Your task to perform on an android device: Open privacy settings Image 0: 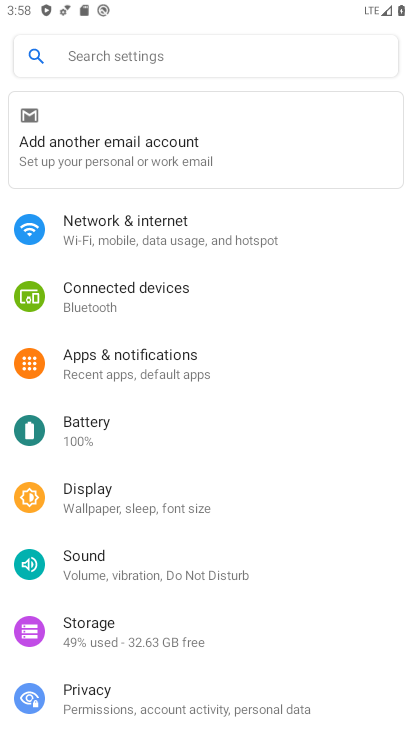
Step 0: press home button
Your task to perform on an android device: Open privacy settings Image 1: 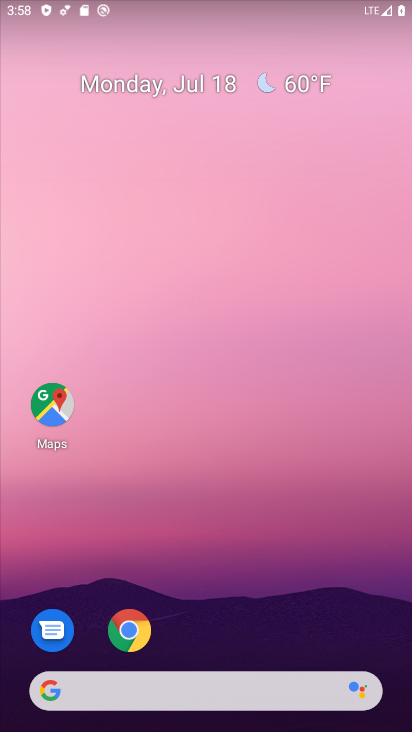
Step 1: drag from (331, 582) to (272, 68)
Your task to perform on an android device: Open privacy settings Image 2: 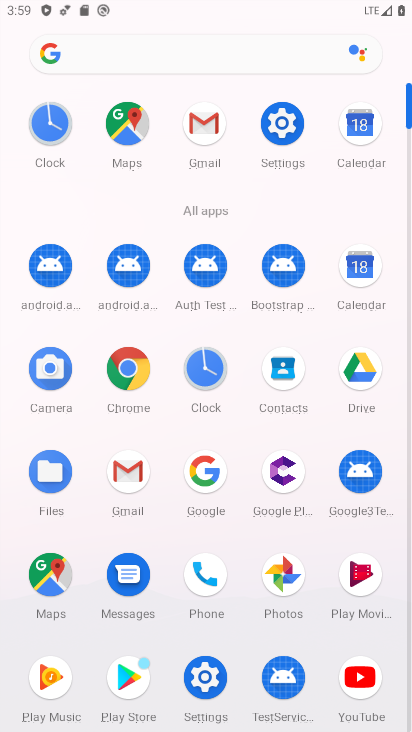
Step 2: click (210, 671)
Your task to perform on an android device: Open privacy settings Image 3: 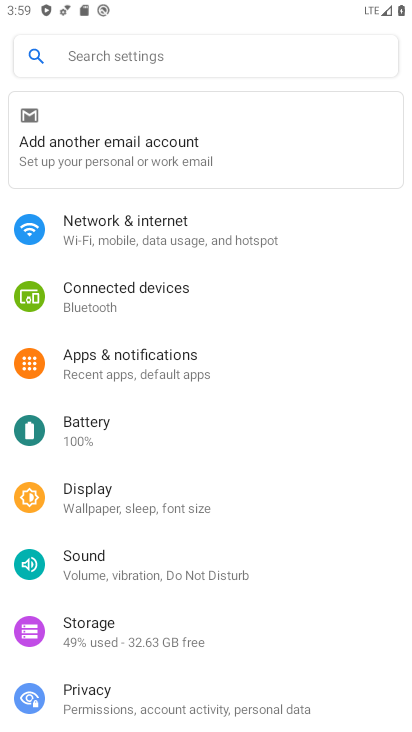
Step 3: click (216, 719)
Your task to perform on an android device: Open privacy settings Image 4: 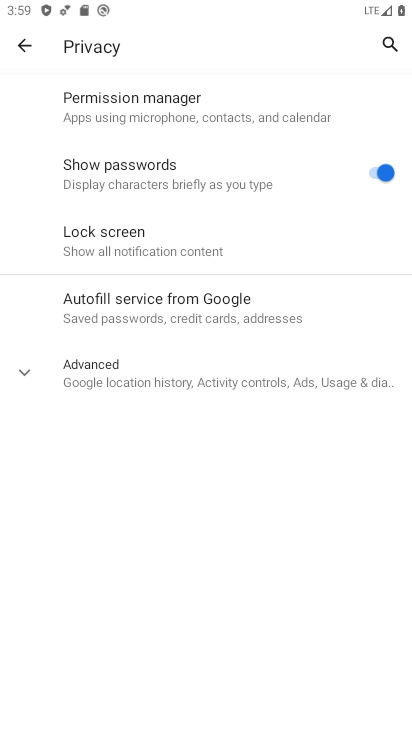
Step 4: task complete